Your task to perform on an android device: View the shopping cart on walmart. Search for razer nari on walmart, select the first entry, and add it to the cart. Image 0: 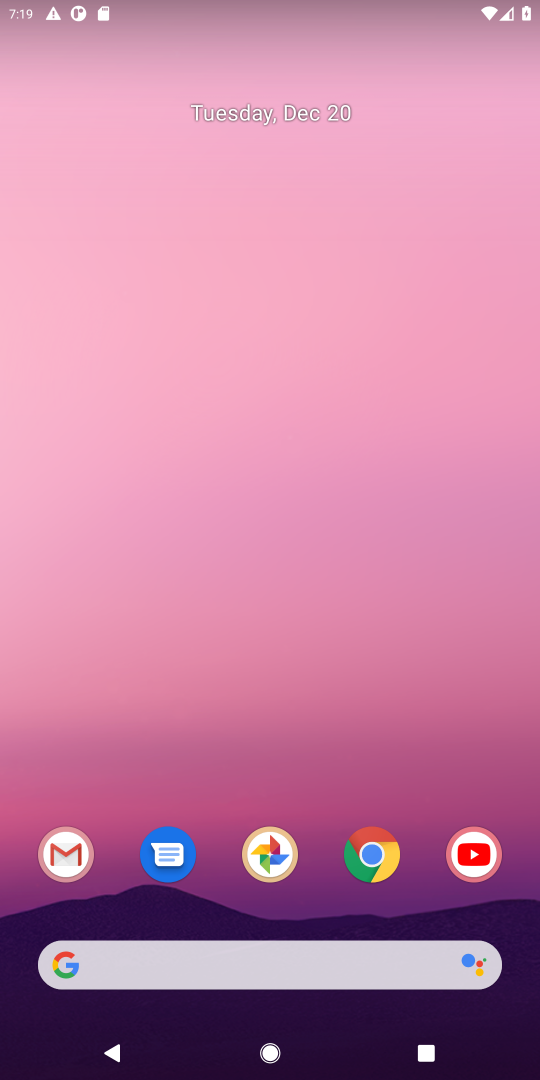
Step 0: click (373, 872)
Your task to perform on an android device: View the shopping cart on walmart. Search for razer nari on walmart, select the first entry, and add it to the cart. Image 1: 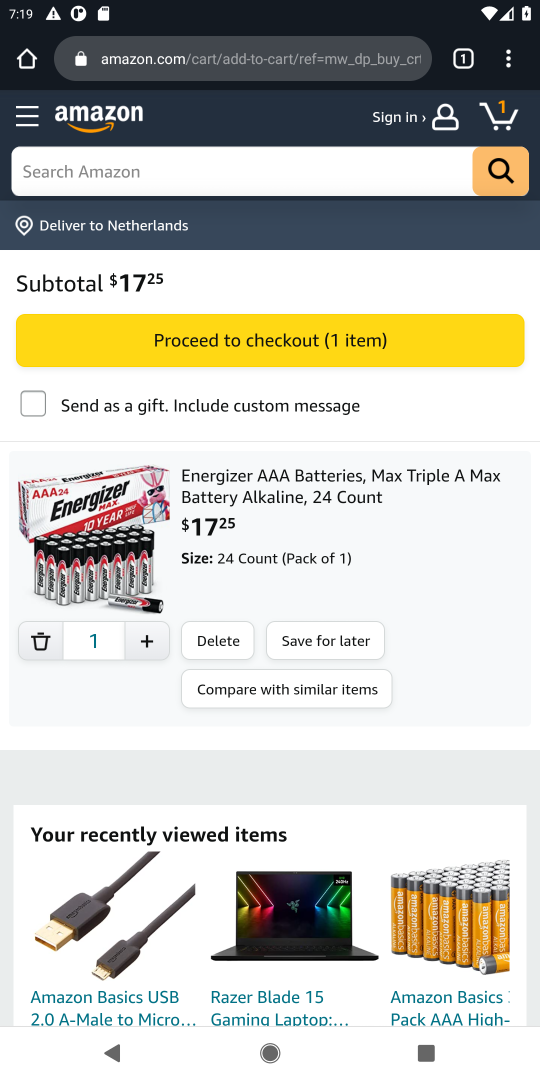
Step 1: click (195, 63)
Your task to perform on an android device: View the shopping cart on walmart. Search for razer nari on walmart, select the first entry, and add it to the cart. Image 2: 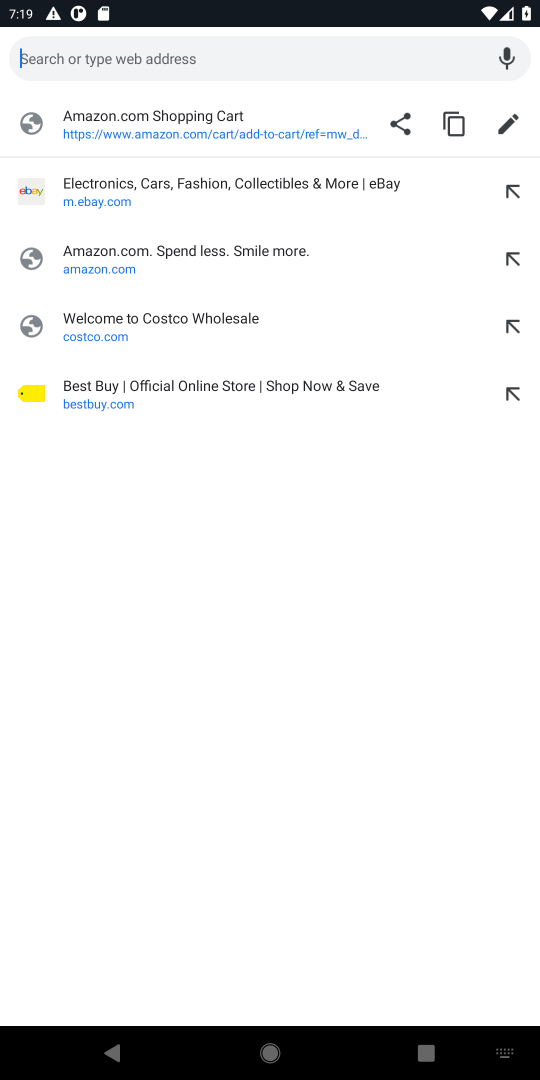
Step 2: type "walmart.com"
Your task to perform on an android device: View the shopping cart on walmart. Search for razer nari on walmart, select the first entry, and add it to the cart. Image 3: 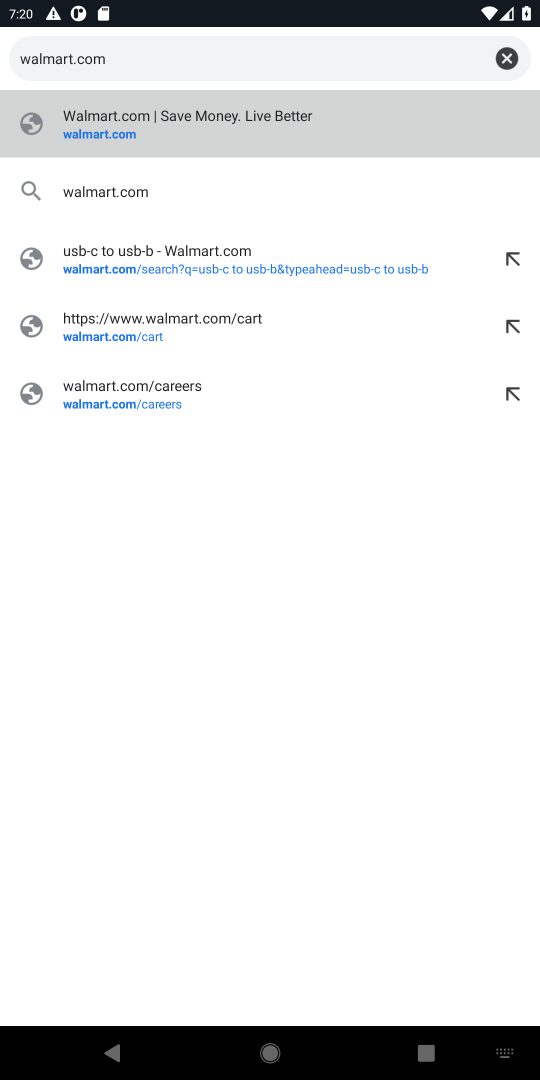
Step 3: click (94, 139)
Your task to perform on an android device: View the shopping cart on walmart. Search for razer nari on walmart, select the first entry, and add it to the cart. Image 4: 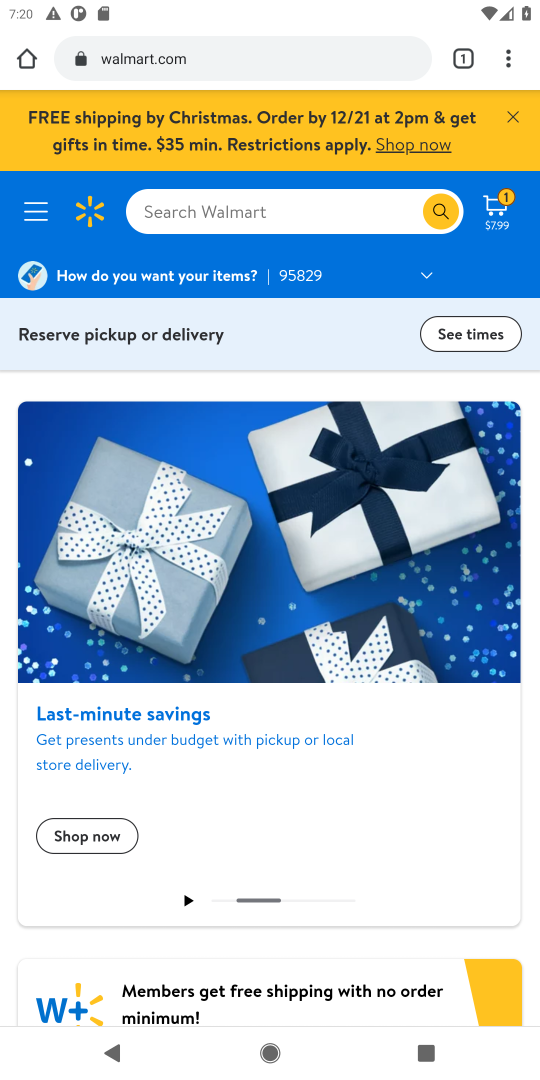
Step 4: click (505, 212)
Your task to perform on an android device: View the shopping cart on walmart. Search for razer nari on walmart, select the first entry, and add it to the cart. Image 5: 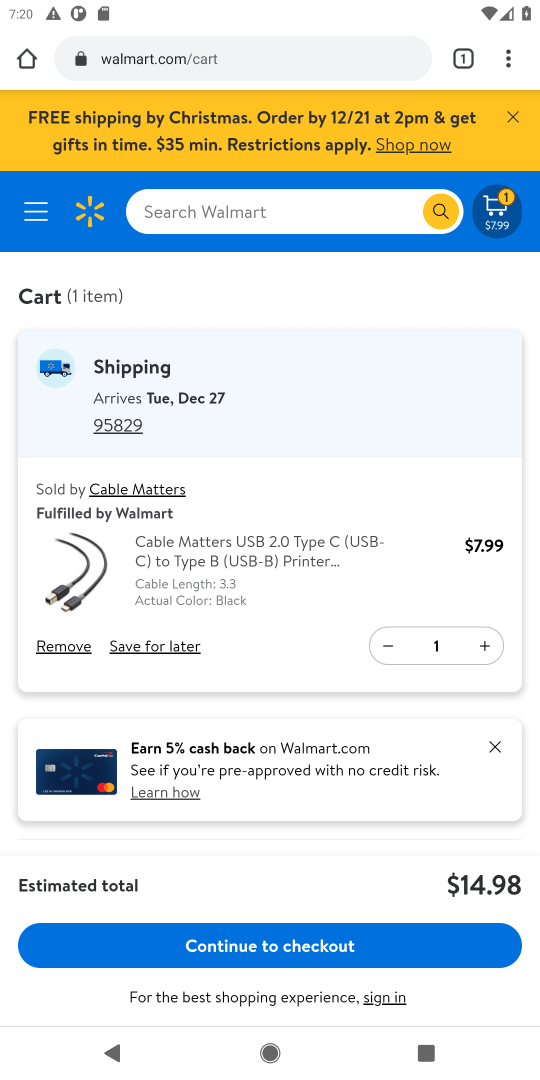
Step 5: click (182, 224)
Your task to perform on an android device: View the shopping cart on walmart. Search for razer nari on walmart, select the first entry, and add it to the cart. Image 6: 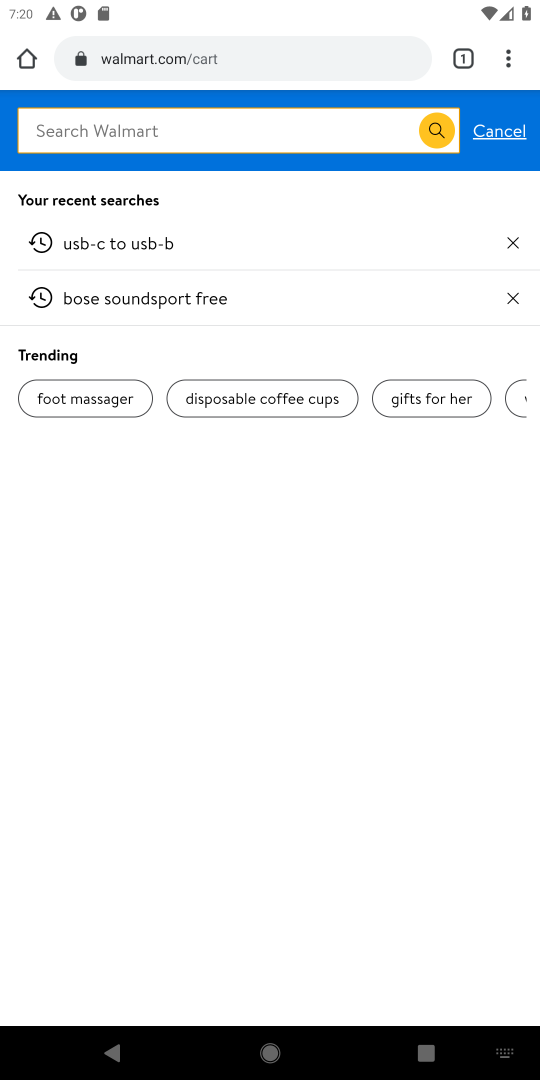
Step 6: type "razer nari "
Your task to perform on an android device: View the shopping cart on walmart. Search for razer nari on walmart, select the first entry, and add it to the cart. Image 7: 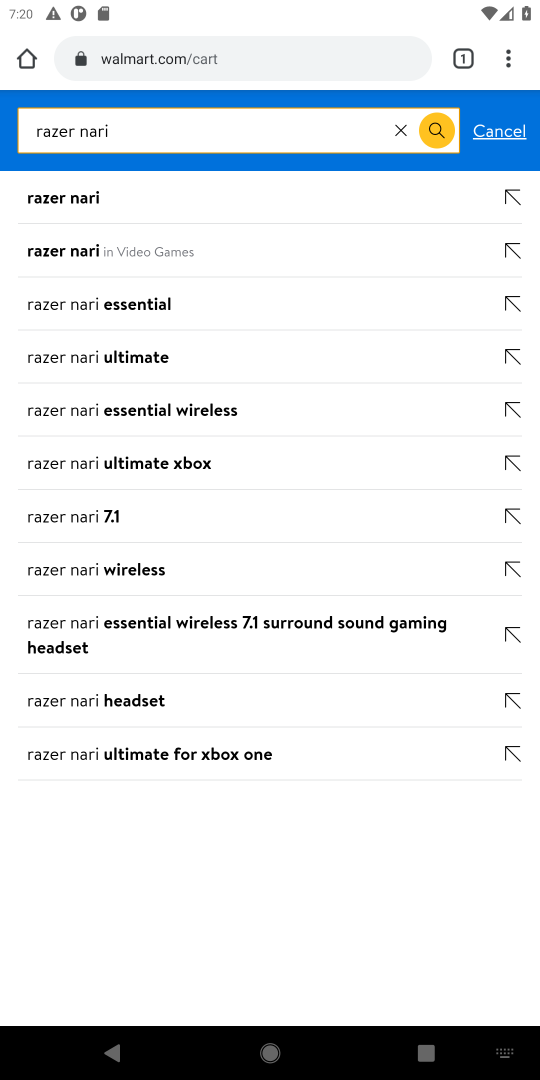
Step 7: click (56, 203)
Your task to perform on an android device: View the shopping cart on walmart. Search for razer nari on walmart, select the first entry, and add it to the cart. Image 8: 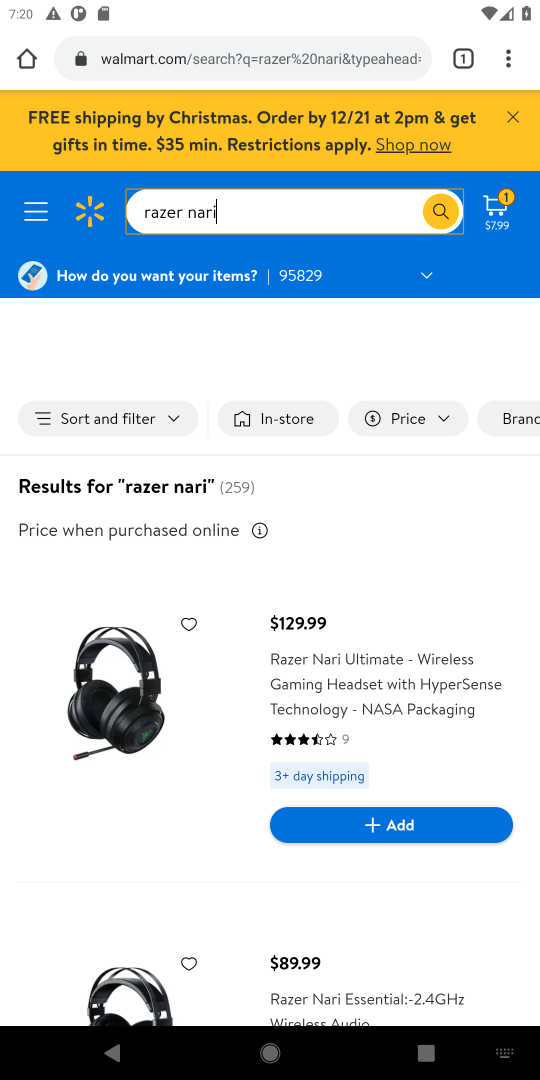
Step 8: click (384, 829)
Your task to perform on an android device: View the shopping cart on walmart. Search for razer nari on walmart, select the first entry, and add it to the cart. Image 9: 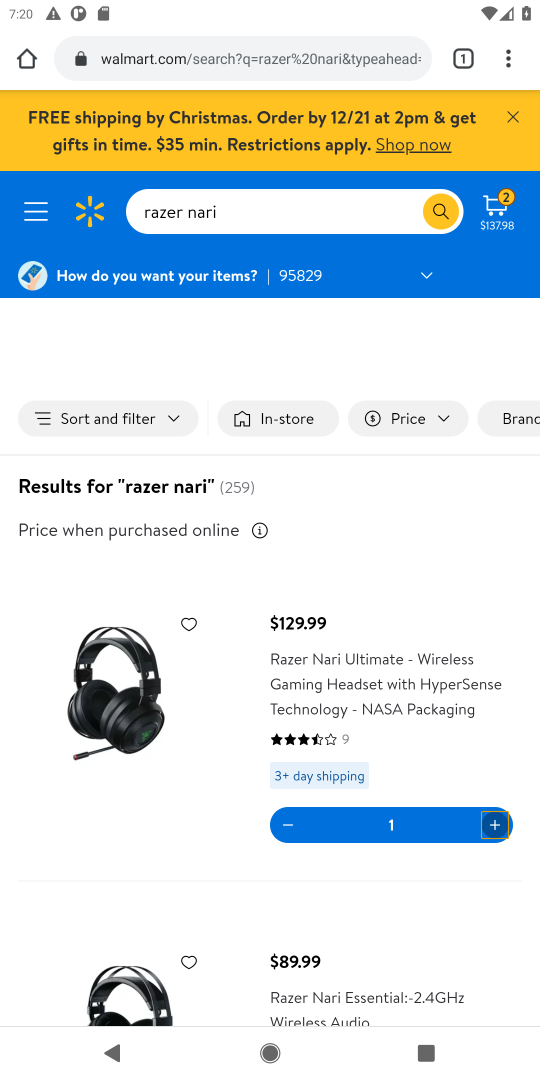
Step 9: task complete